Your task to perform on an android device: Play the last video I watched on Youtube Image 0: 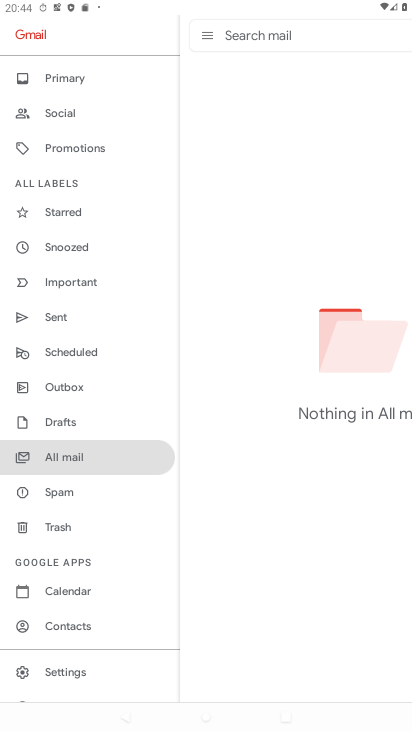
Step 0: press back button
Your task to perform on an android device: Play the last video I watched on Youtube Image 1: 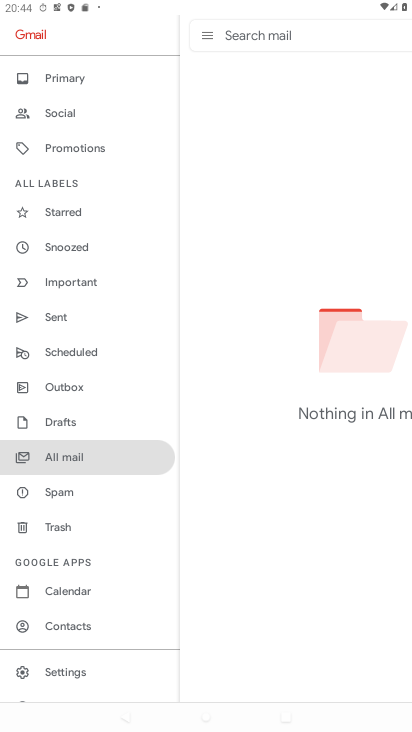
Step 1: press back button
Your task to perform on an android device: Play the last video I watched on Youtube Image 2: 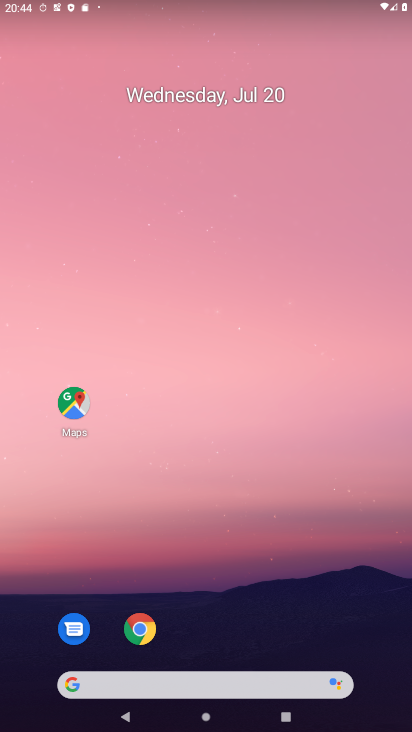
Step 2: drag from (248, 665) to (234, 290)
Your task to perform on an android device: Play the last video I watched on Youtube Image 3: 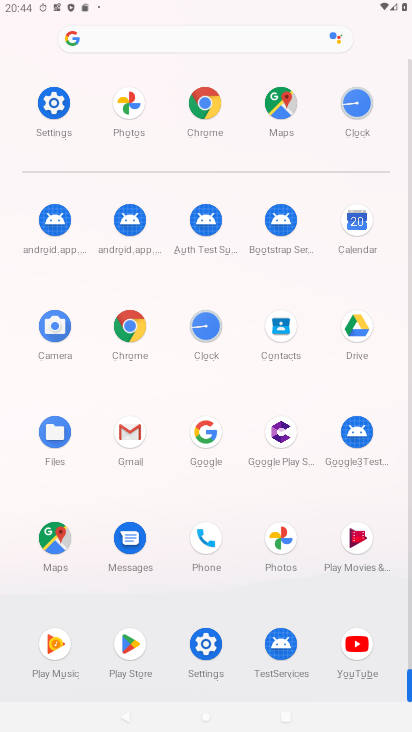
Step 3: click (354, 651)
Your task to perform on an android device: Play the last video I watched on Youtube Image 4: 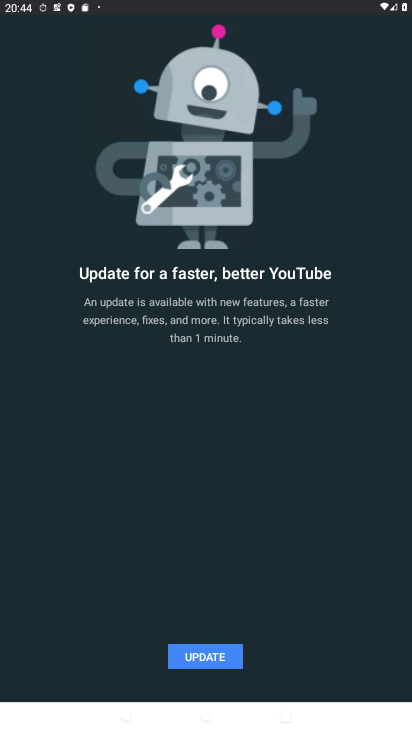
Step 4: click (197, 650)
Your task to perform on an android device: Play the last video I watched on Youtube Image 5: 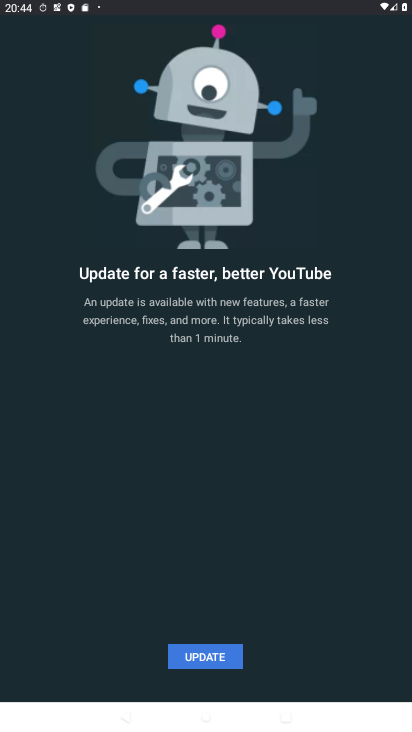
Step 5: click (199, 651)
Your task to perform on an android device: Play the last video I watched on Youtube Image 6: 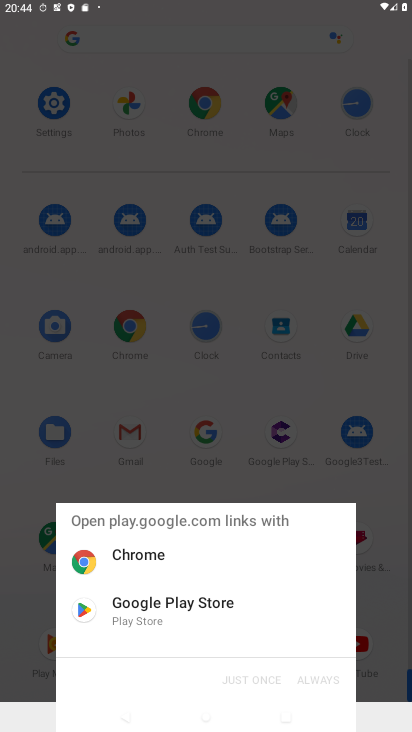
Step 6: click (138, 564)
Your task to perform on an android device: Play the last video I watched on Youtube Image 7: 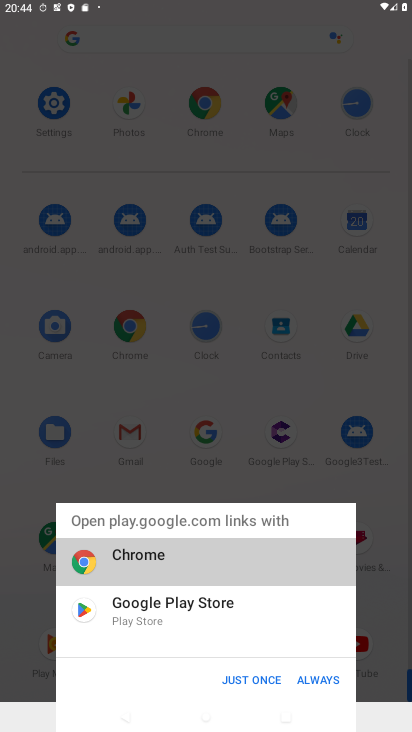
Step 7: click (140, 566)
Your task to perform on an android device: Play the last video I watched on Youtube Image 8: 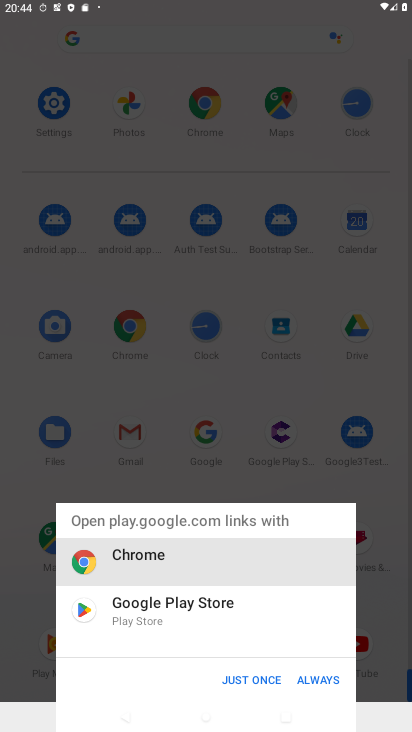
Step 8: click (140, 566)
Your task to perform on an android device: Play the last video I watched on Youtube Image 9: 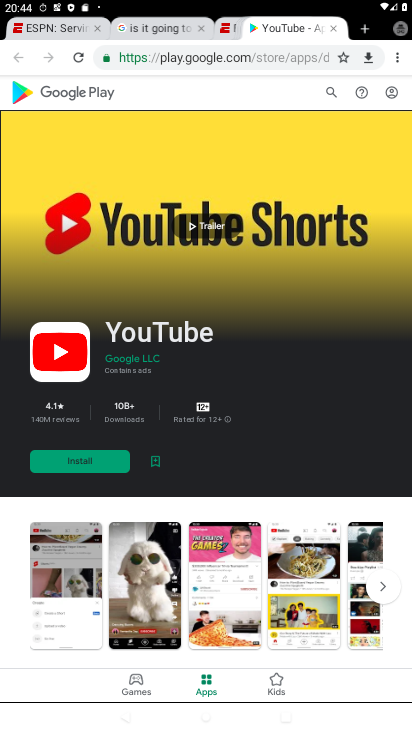
Step 9: task complete